Your task to perform on an android device: Go to Android settings Image 0: 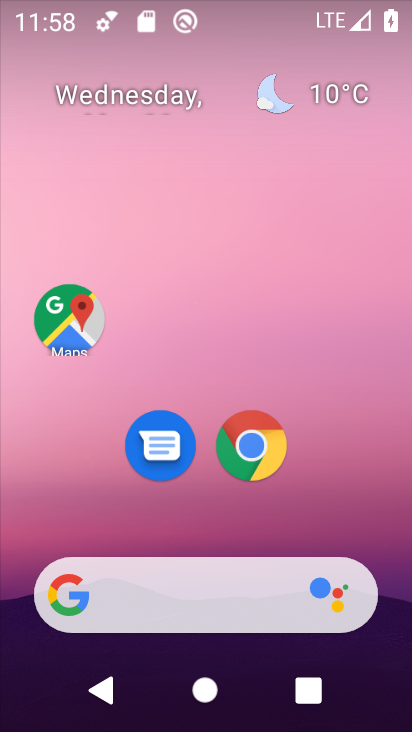
Step 0: drag from (204, 461) to (264, 20)
Your task to perform on an android device: Go to Android settings Image 1: 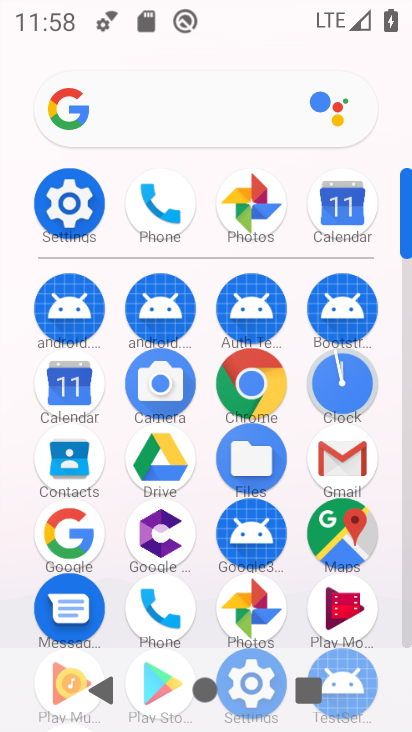
Step 1: click (72, 208)
Your task to perform on an android device: Go to Android settings Image 2: 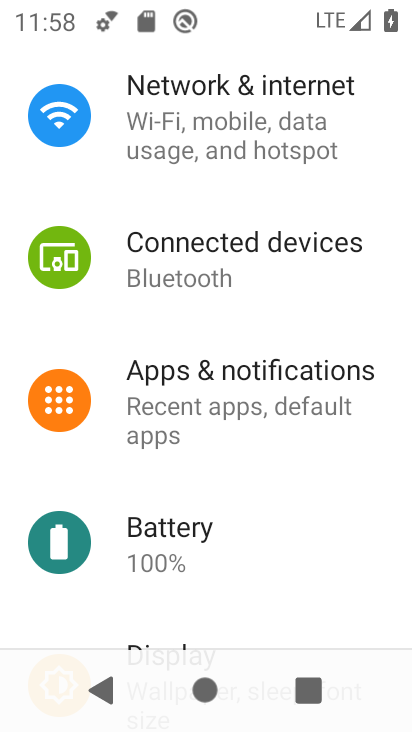
Step 2: drag from (198, 554) to (236, 10)
Your task to perform on an android device: Go to Android settings Image 3: 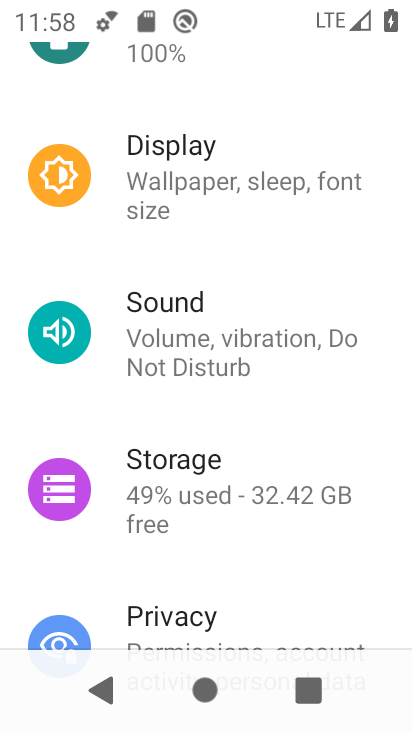
Step 3: drag from (180, 412) to (243, 70)
Your task to perform on an android device: Go to Android settings Image 4: 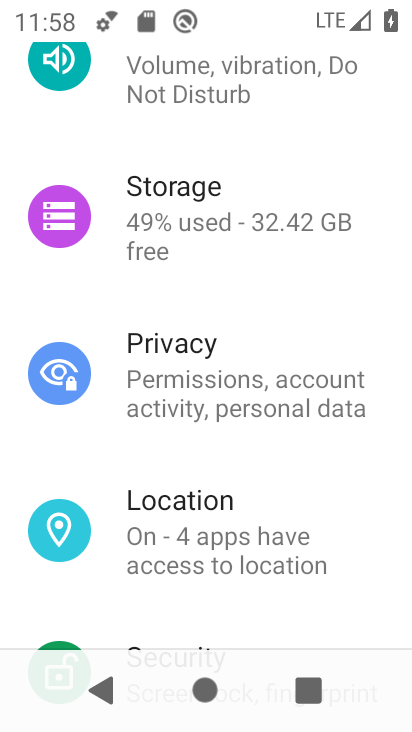
Step 4: drag from (155, 578) to (242, 13)
Your task to perform on an android device: Go to Android settings Image 5: 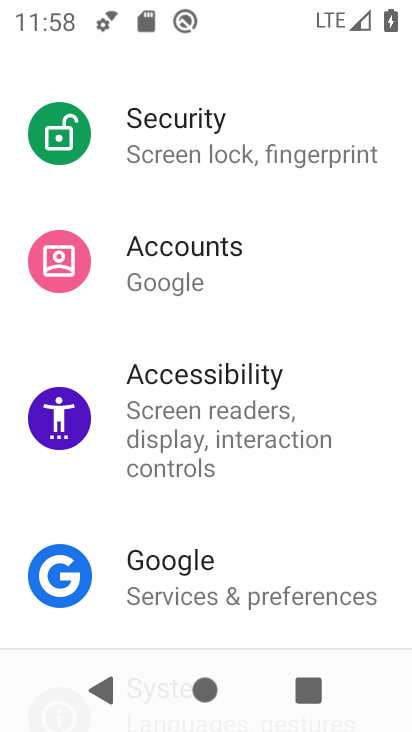
Step 5: drag from (176, 612) to (276, 11)
Your task to perform on an android device: Go to Android settings Image 6: 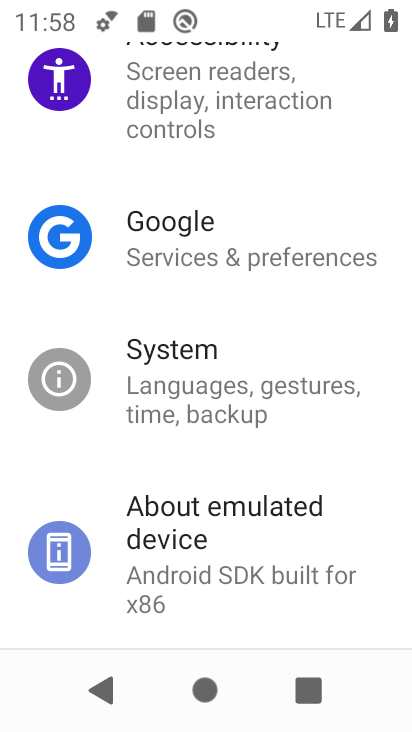
Step 6: click (186, 584)
Your task to perform on an android device: Go to Android settings Image 7: 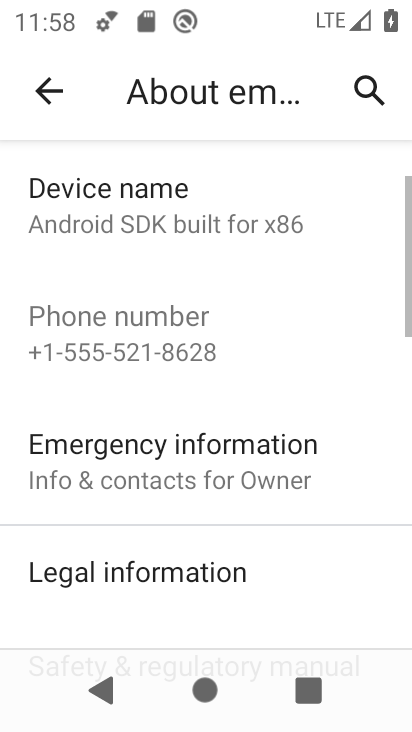
Step 7: drag from (126, 602) to (271, 74)
Your task to perform on an android device: Go to Android settings Image 8: 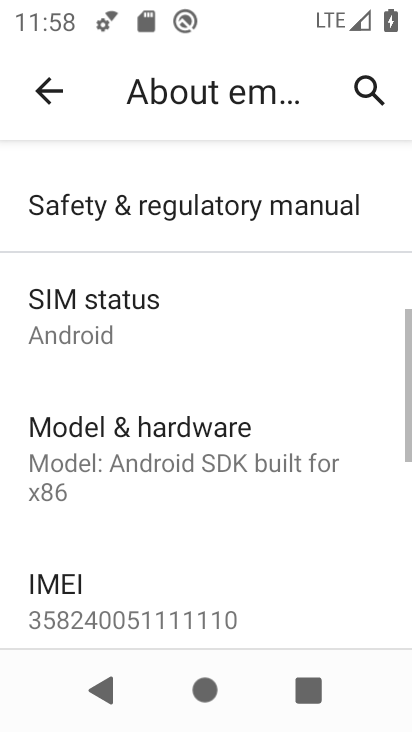
Step 8: drag from (154, 261) to (130, 608)
Your task to perform on an android device: Go to Android settings Image 9: 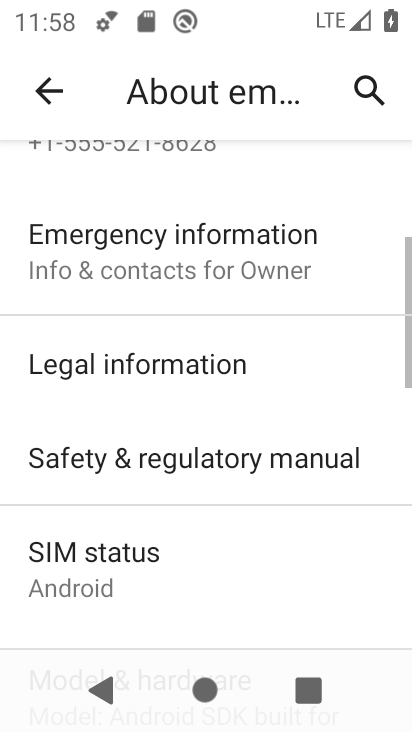
Step 9: drag from (143, 578) to (189, 115)
Your task to perform on an android device: Go to Android settings Image 10: 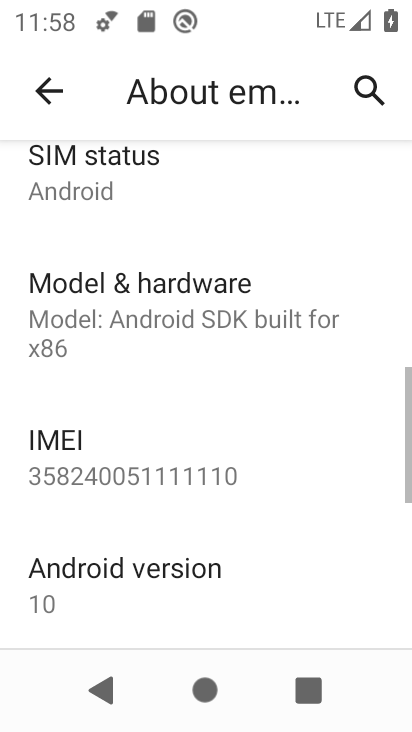
Step 10: drag from (156, 499) to (186, 142)
Your task to perform on an android device: Go to Android settings Image 11: 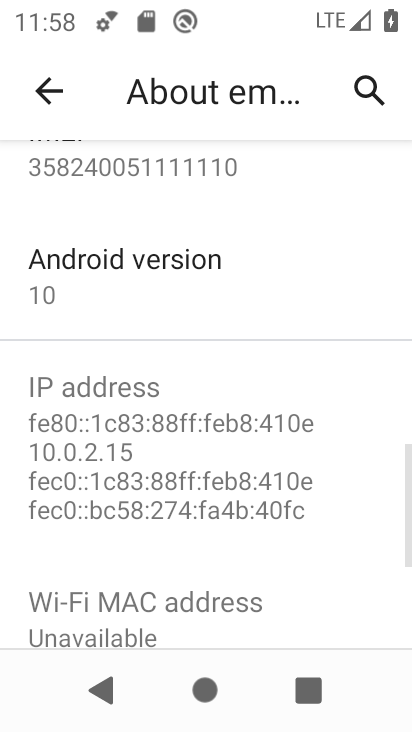
Step 11: click (116, 273)
Your task to perform on an android device: Go to Android settings Image 12: 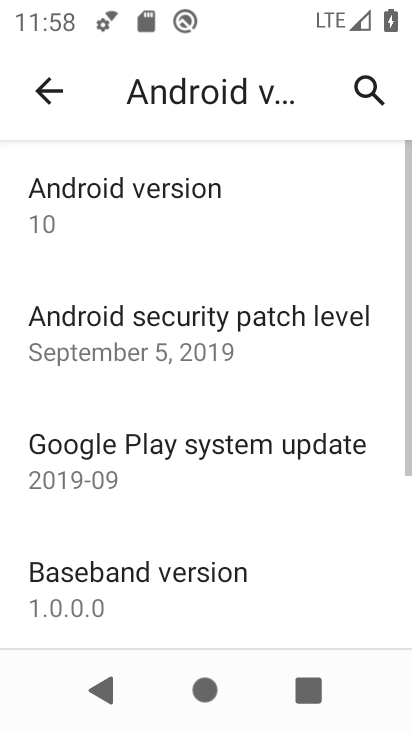
Step 12: task complete